Your task to perform on an android device: Open the phone app and click the voicemail tab. Image 0: 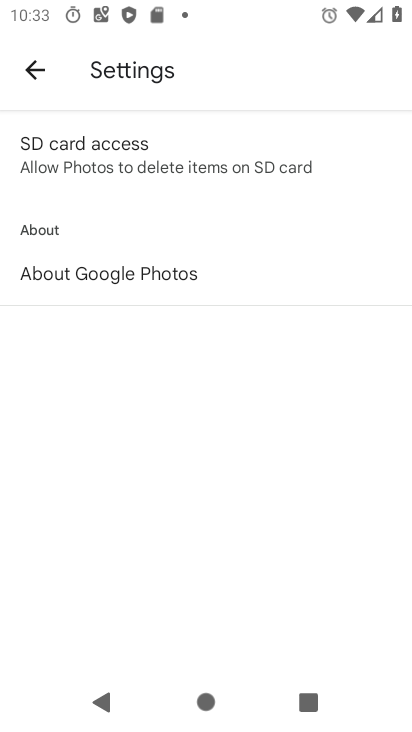
Step 0: press home button
Your task to perform on an android device: Open the phone app and click the voicemail tab. Image 1: 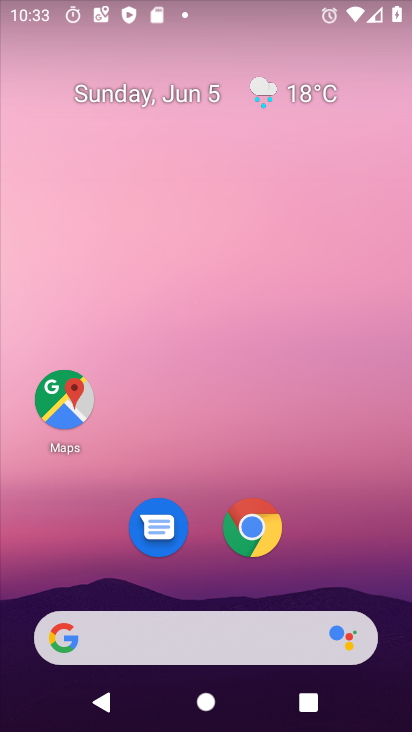
Step 1: drag from (303, 585) to (221, 70)
Your task to perform on an android device: Open the phone app and click the voicemail tab. Image 2: 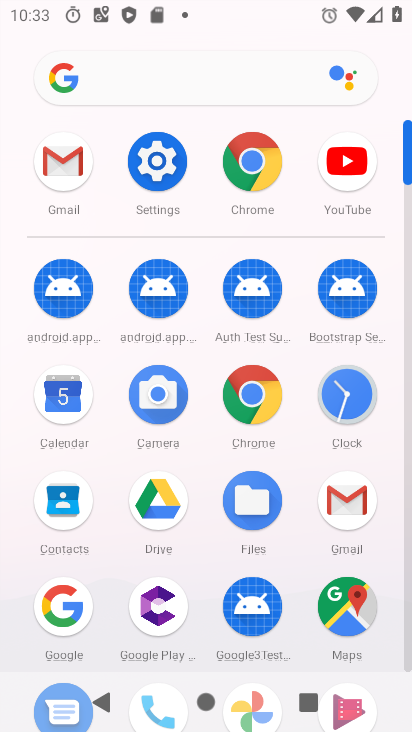
Step 2: drag from (389, 664) to (307, 175)
Your task to perform on an android device: Open the phone app and click the voicemail tab. Image 3: 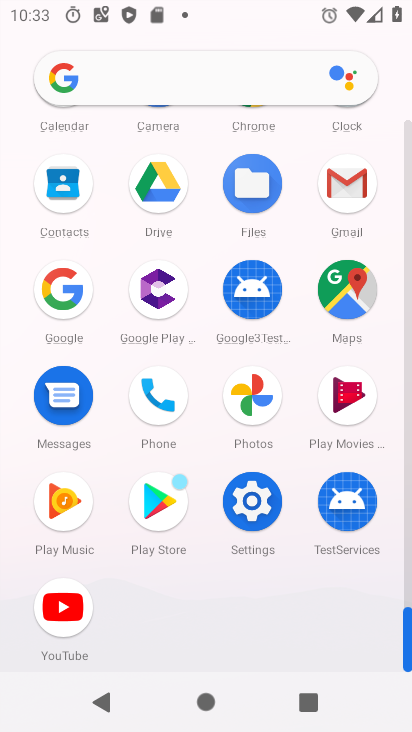
Step 3: click (169, 388)
Your task to perform on an android device: Open the phone app and click the voicemail tab. Image 4: 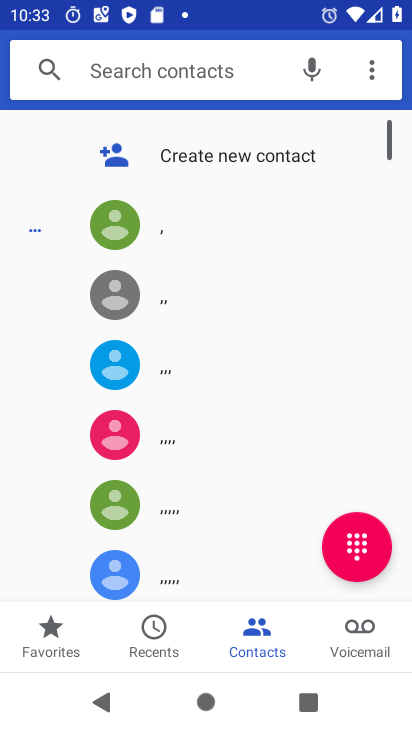
Step 4: click (352, 651)
Your task to perform on an android device: Open the phone app and click the voicemail tab. Image 5: 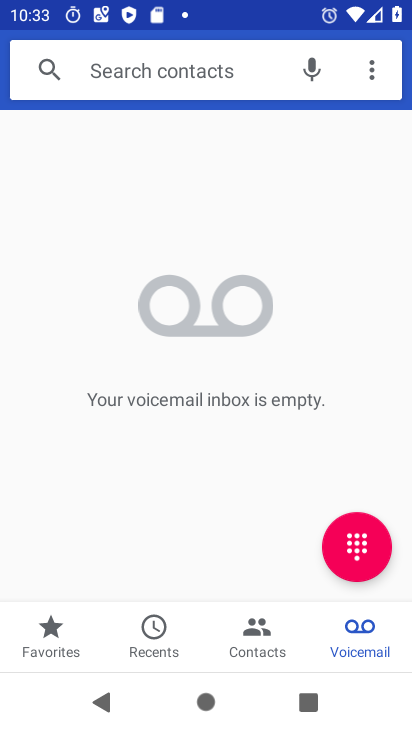
Step 5: task complete